Your task to perform on an android device: Open Wikipedia Image 0: 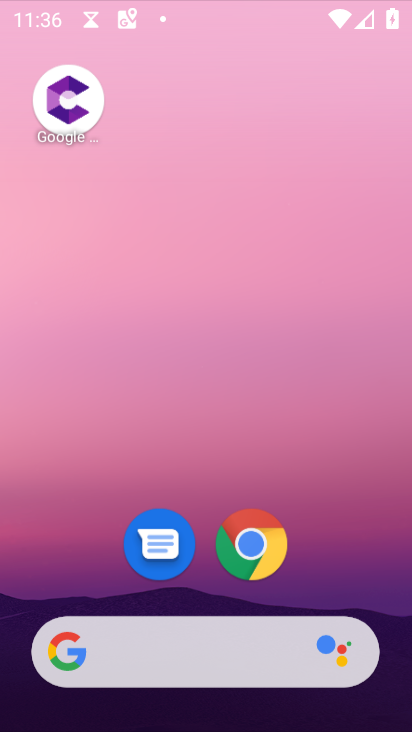
Step 0: drag from (275, 113) to (235, 246)
Your task to perform on an android device: Open Wikipedia Image 1: 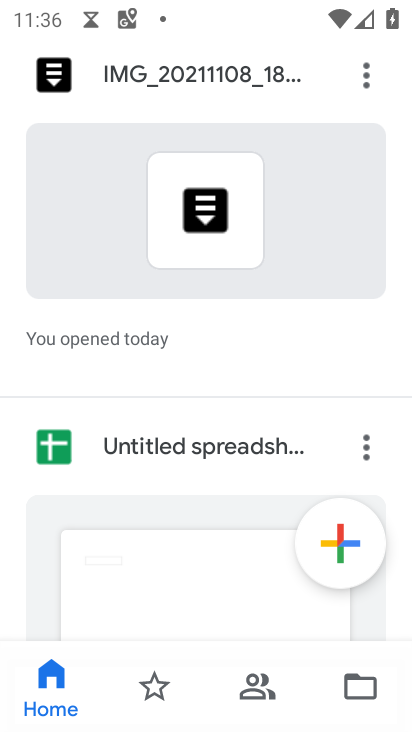
Step 1: press home button
Your task to perform on an android device: Open Wikipedia Image 2: 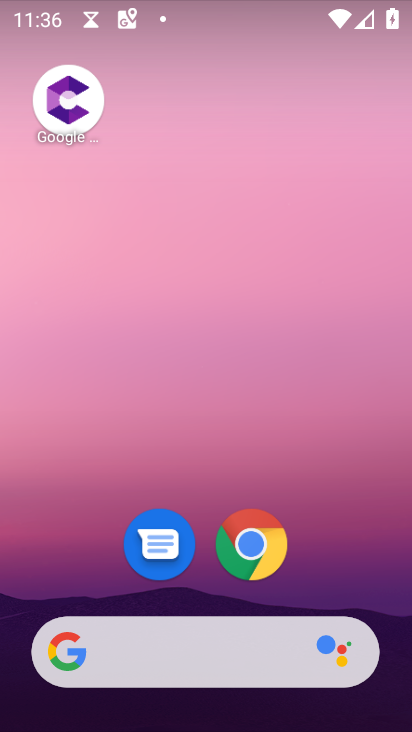
Step 2: drag from (224, 674) to (304, 83)
Your task to perform on an android device: Open Wikipedia Image 3: 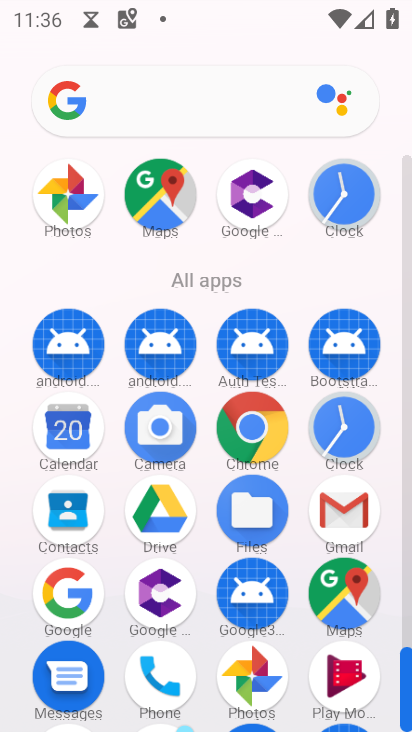
Step 3: click (246, 440)
Your task to perform on an android device: Open Wikipedia Image 4: 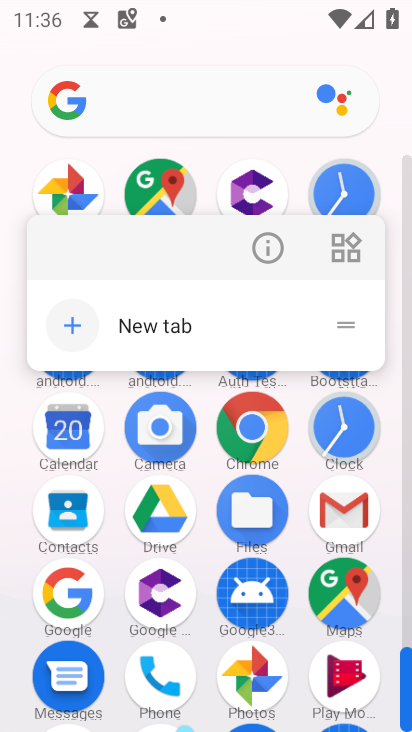
Step 4: click (259, 423)
Your task to perform on an android device: Open Wikipedia Image 5: 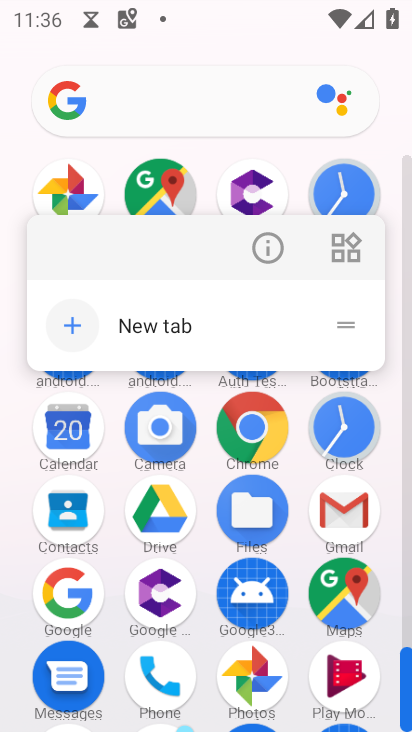
Step 5: click (242, 431)
Your task to perform on an android device: Open Wikipedia Image 6: 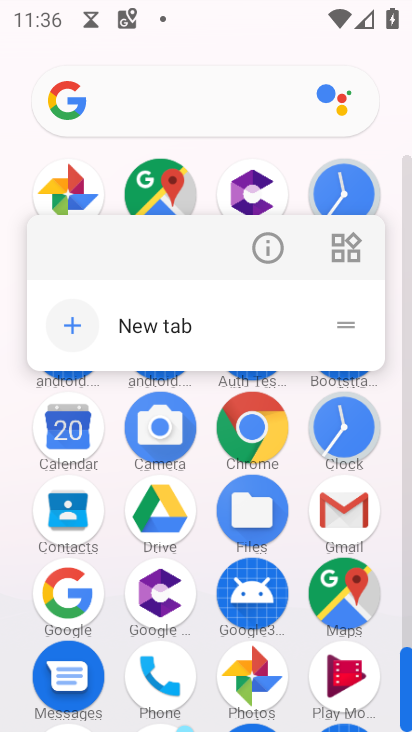
Step 6: click (242, 431)
Your task to perform on an android device: Open Wikipedia Image 7: 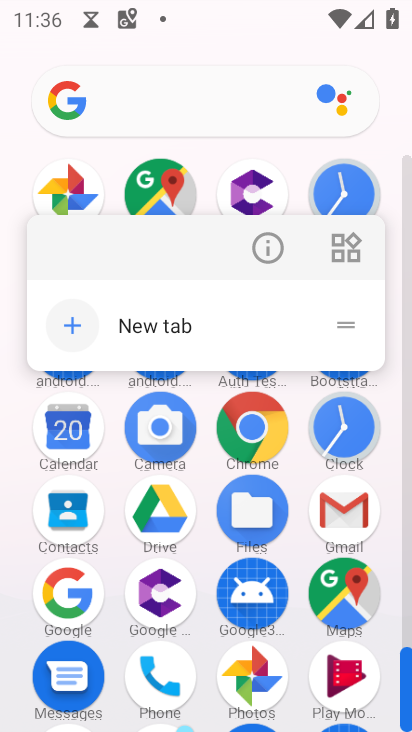
Step 7: click (255, 430)
Your task to perform on an android device: Open Wikipedia Image 8: 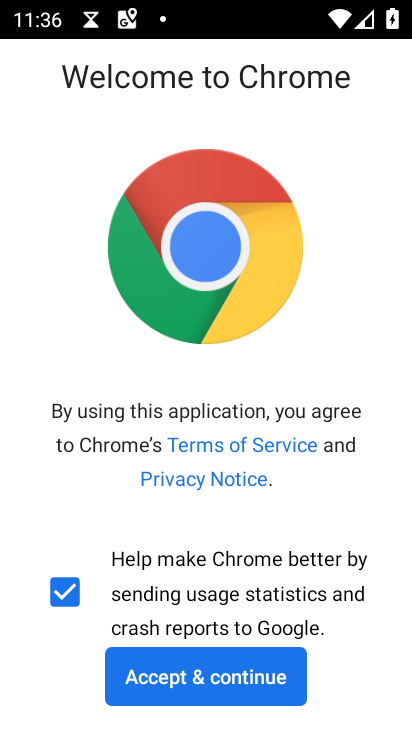
Step 8: click (179, 674)
Your task to perform on an android device: Open Wikipedia Image 9: 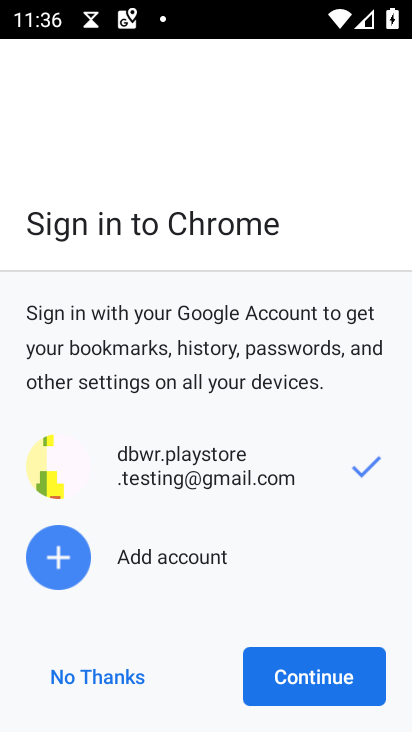
Step 9: click (282, 678)
Your task to perform on an android device: Open Wikipedia Image 10: 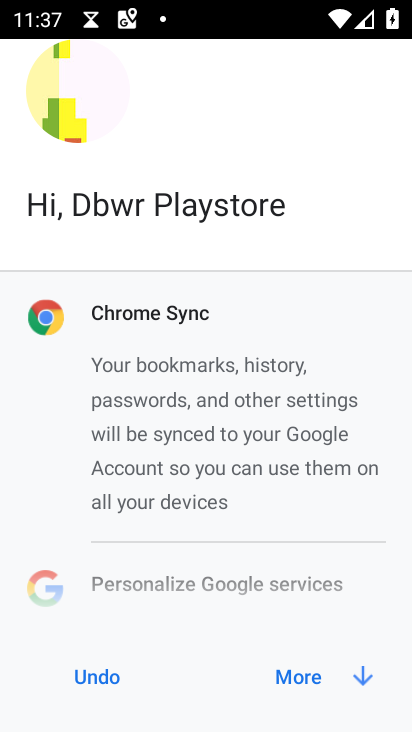
Step 10: click (353, 681)
Your task to perform on an android device: Open Wikipedia Image 11: 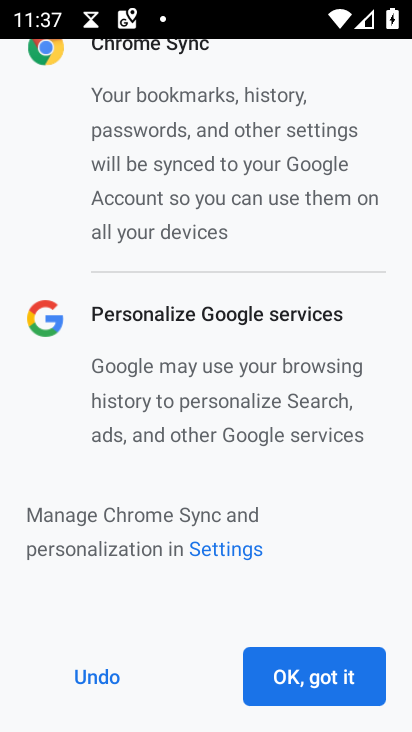
Step 11: click (353, 681)
Your task to perform on an android device: Open Wikipedia Image 12: 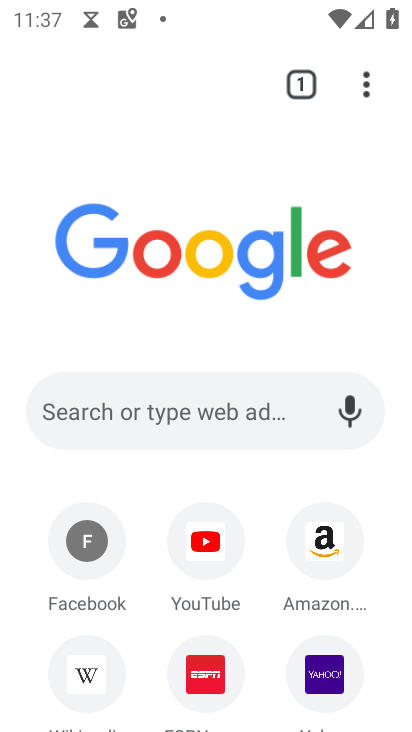
Step 12: click (160, 406)
Your task to perform on an android device: Open Wikipedia Image 13: 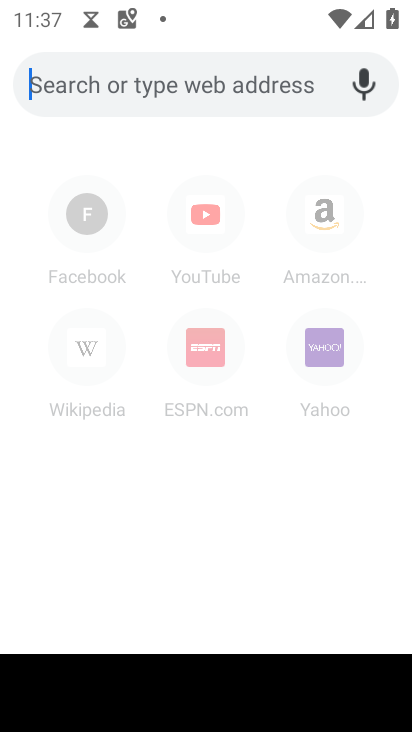
Step 13: drag from (401, 701) to (390, 641)
Your task to perform on an android device: Open Wikipedia Image 14: 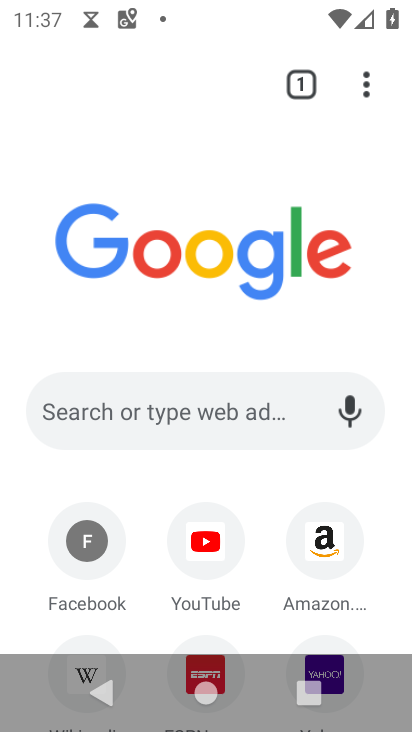
Step 14: click (393, 694)
Your task to perform on an android device: Open Wikipedia Image 15: 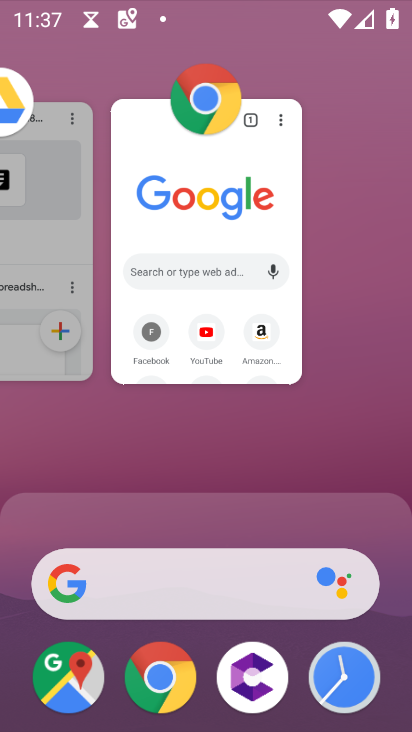
Step 15: click (280, 325)
Your task to perform on an android device: Open Wikipedia Image 16: 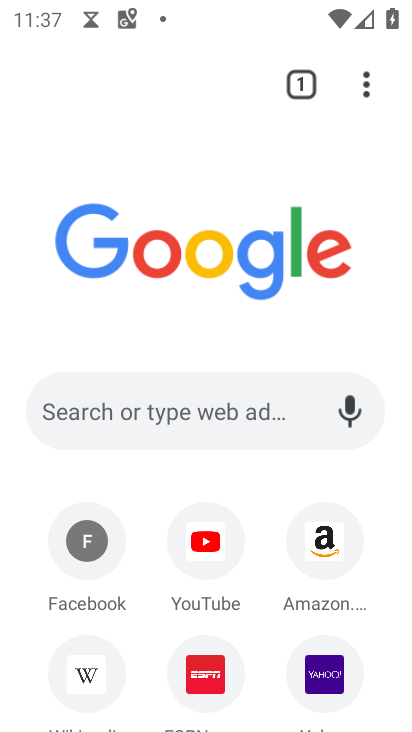
Step 16: drag from (395, 717) to (395, 647)
Your task to perform on an android device: Open Wikipedia Image 17: 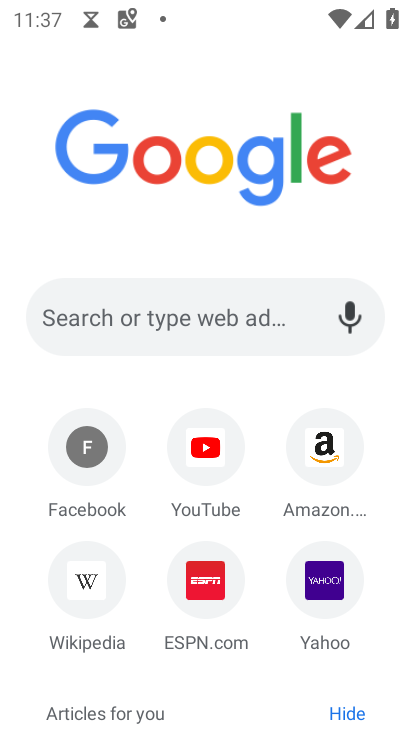
Step 17: drag from (402, 726) to (391, 640)
Your task to perform on an android device: Open Wikipedia Image 18: 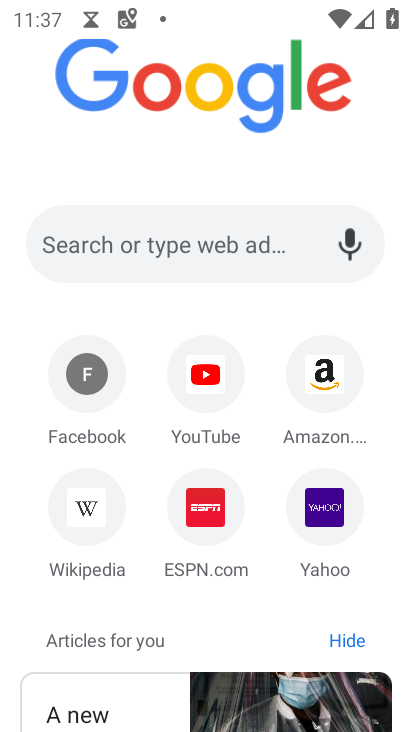
Step 18: click (92, 475)
Your task to perform on an android device: Open Wikipedia Image 19: 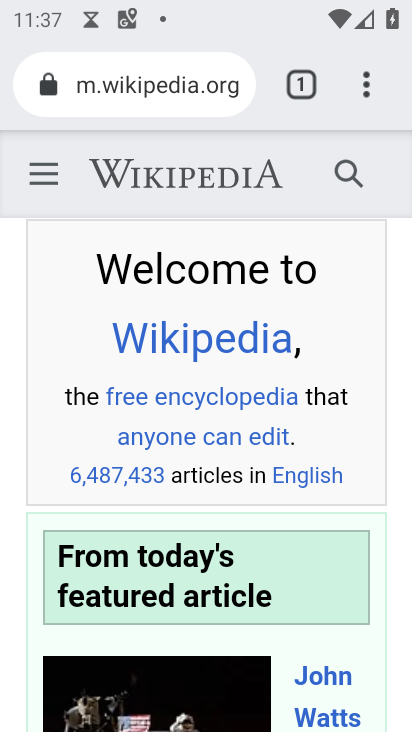
Step 19: task complete